Your task to perform on an android device: stop showing notifications on the lock screen Image 0: 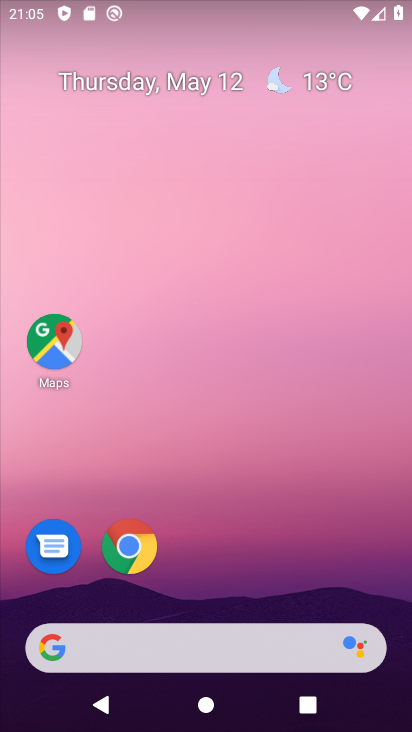
Step 0: drag from (283, 566) to (333, 72)
Your task to perform on an android device: stop showing notifications on the lock screen Image 1: 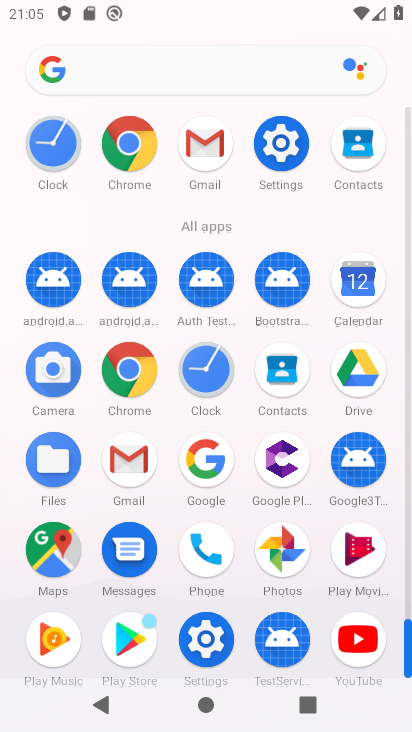
Step 1: click (208, 648)
Your task to perform on an android device: stop showing notifications on the lock screen Image 2: 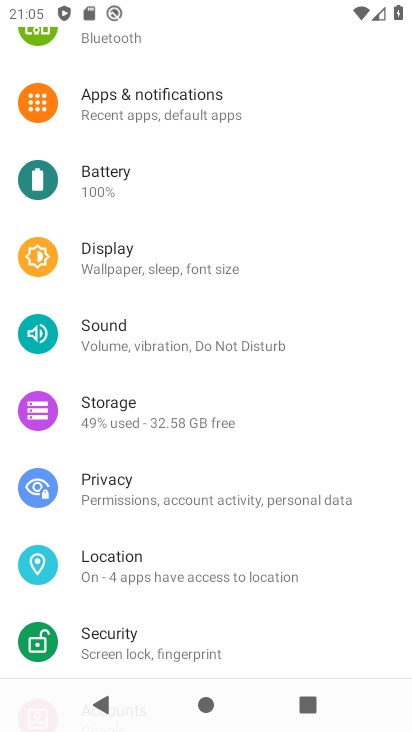
Step 2: click (175, 105)
Your task to perform on an android device: stop showing notifications on the lock screen Image 3: 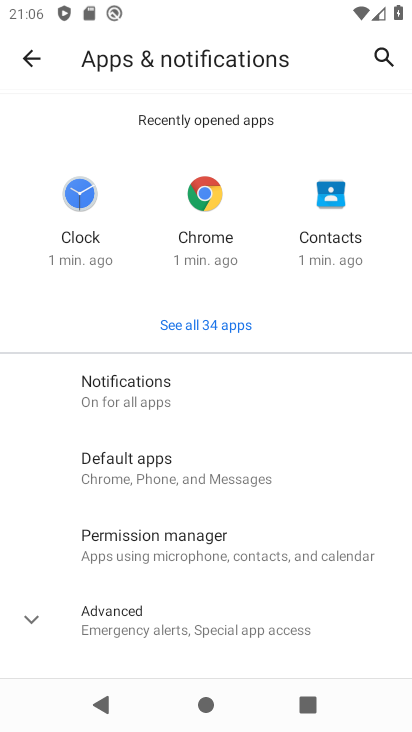
Step 3: click (134, 393)
Your task to perform on an android device: stop showing notifications on the lock screen Image 4: 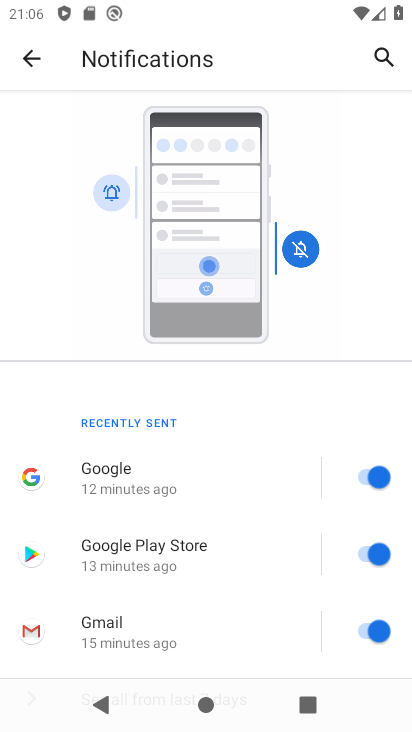
Step 4: drag from (259, 640) to (308, 162)
Your task to perform on an android device: stop showing notifications on the lock screen Image 5: 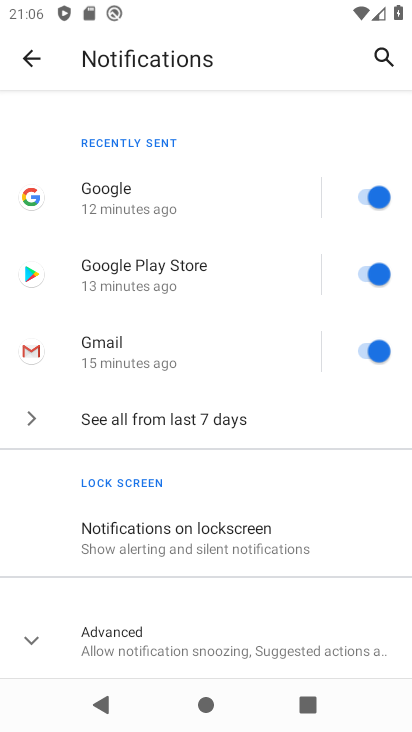
Step 5: click (228, 537)
Your task to perform on an android device: stop showing notifications on the lock screen Image 6: 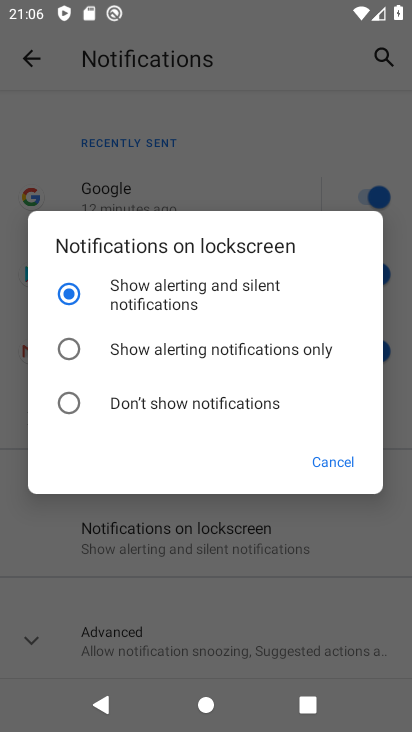
Step 6: click (212, 402)
Your task to perform on an android device: stop showing notifications on the lock screen Image 7: 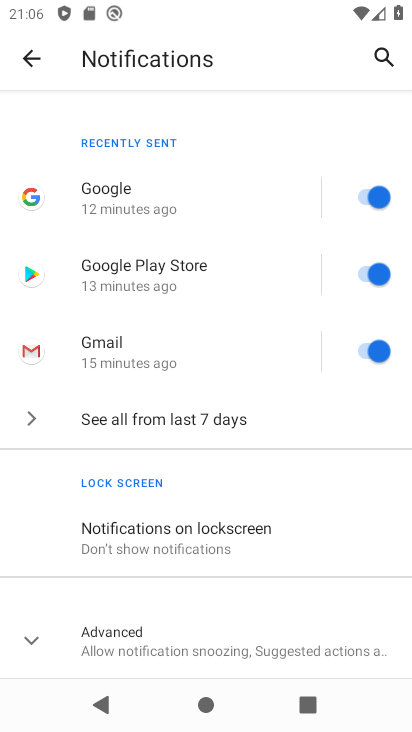
Step 7: task complete